Your task to perform on an android device: visit the assistant section in the google photos Image 0: 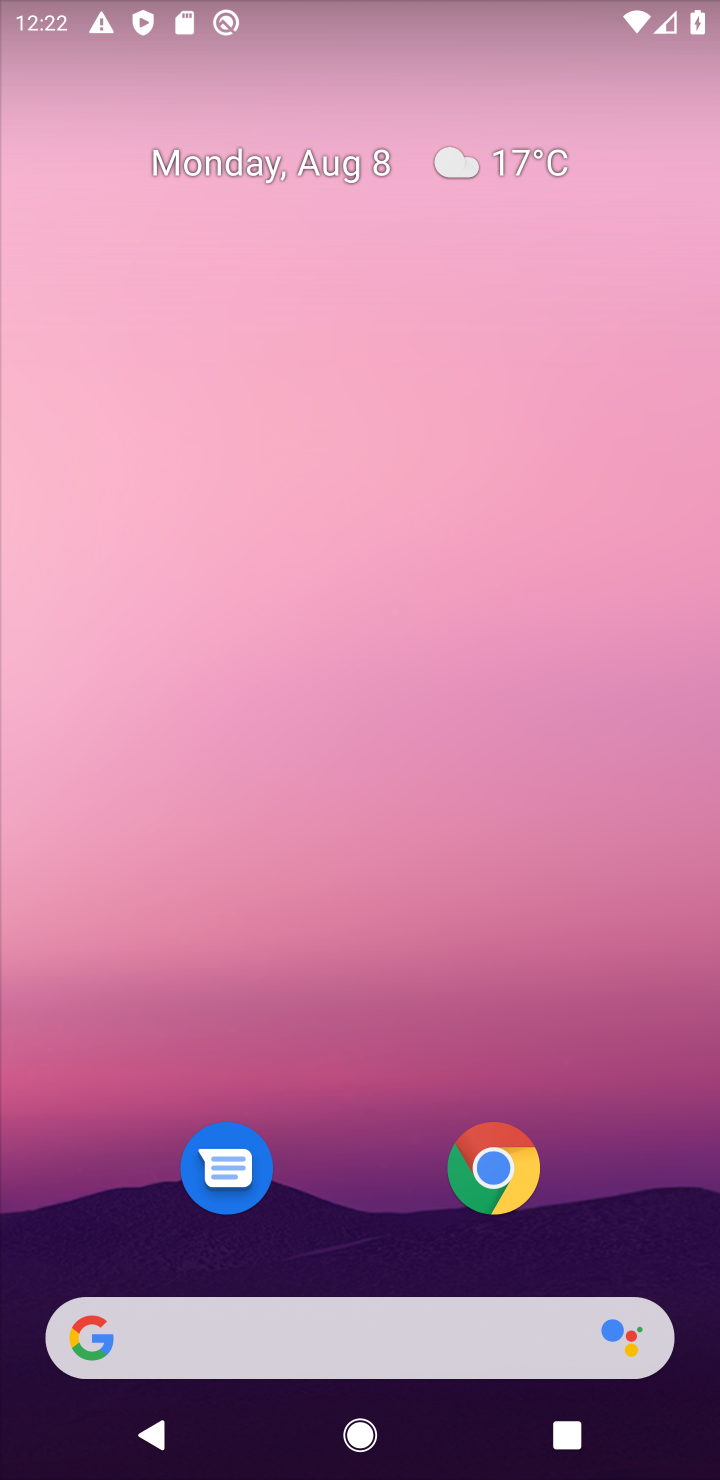
Step 0: drag from (87, 1417) to (494, 807)
Your task to perform on an android device: visit the assistant section in the google photos Image 1: 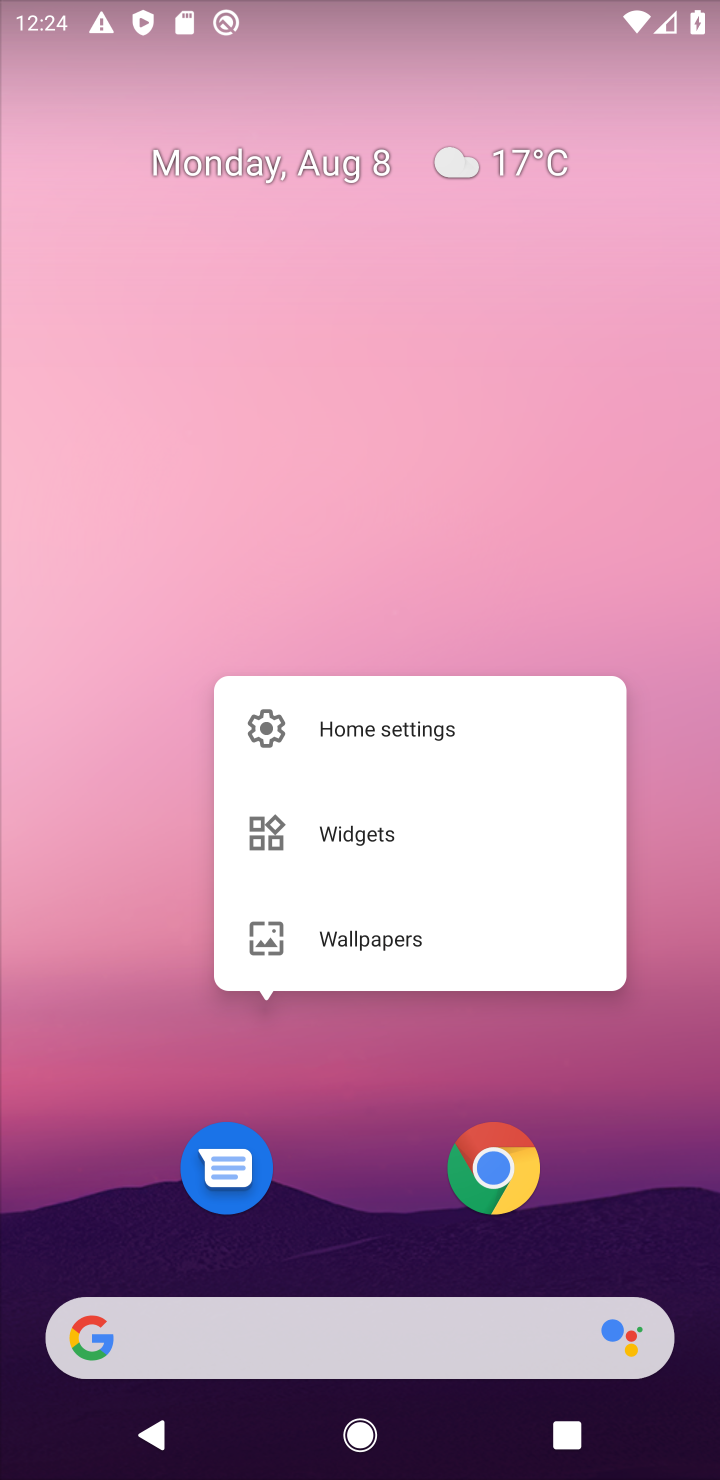
Step 1: drag from (161, 1102) to (486, 543)
Your task to perform on an android device: visit the assistant section in the google photos Image 2: 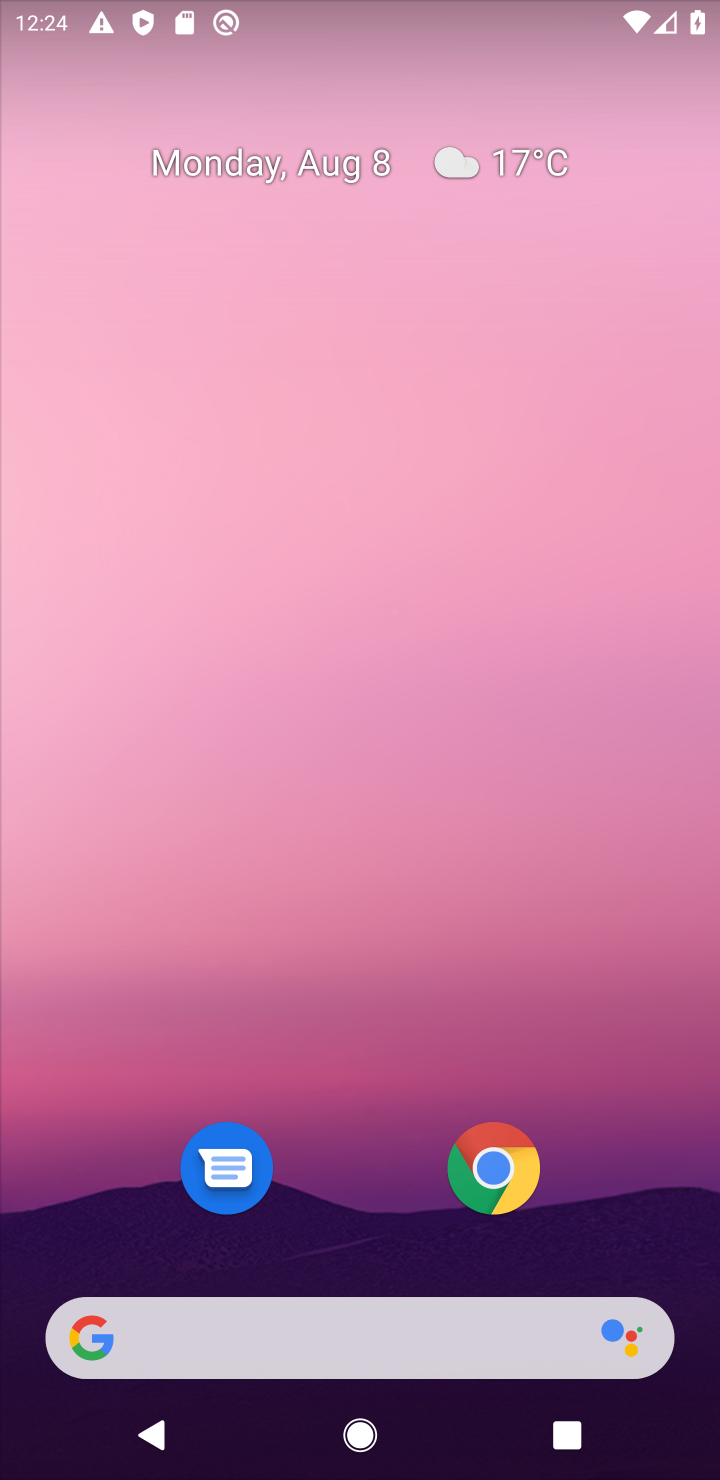
Step 2: drag from (77, 1443) to (573, 225)
Your task to perform on an android device: visit the assistant section in the google photos Image 3: 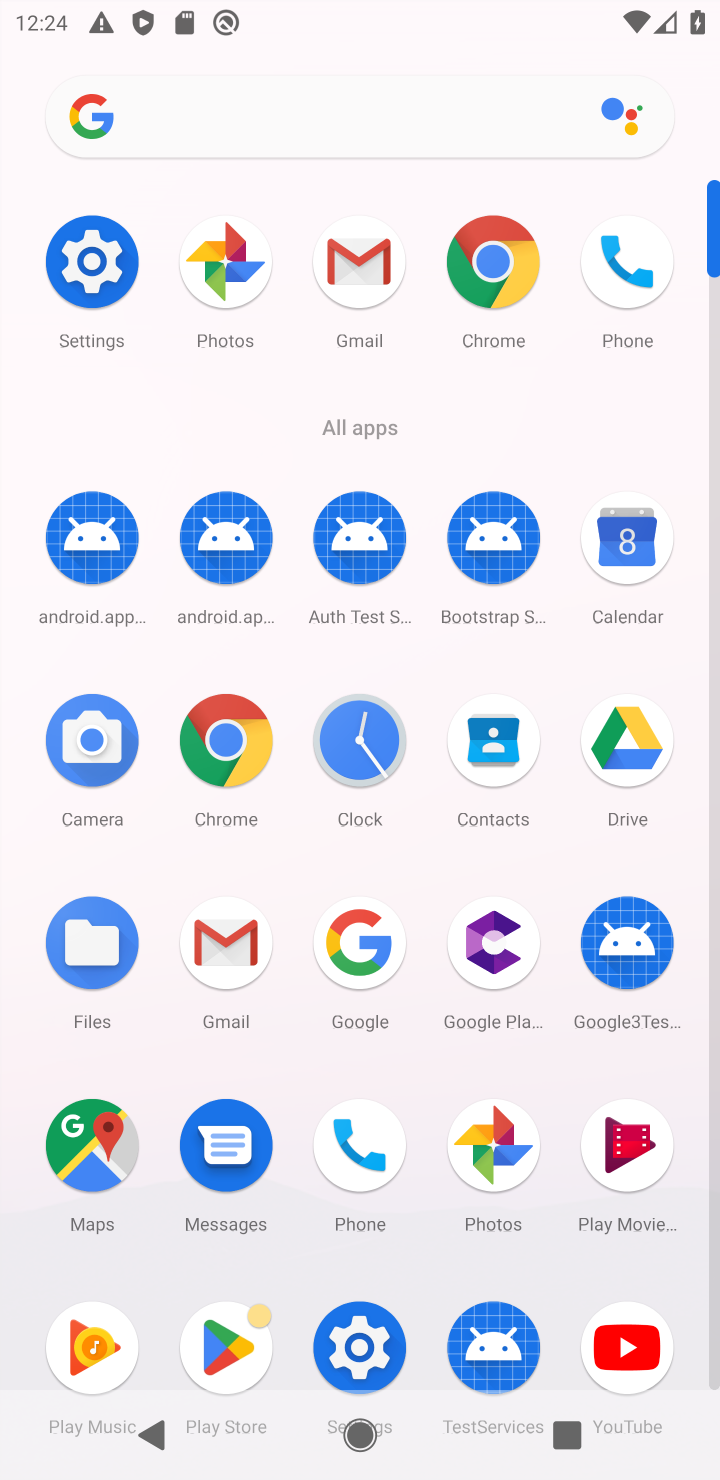
Step 3: click (467, 1145)
Your task to perform on an android device: visit the assistant section in the google photos Image 4: 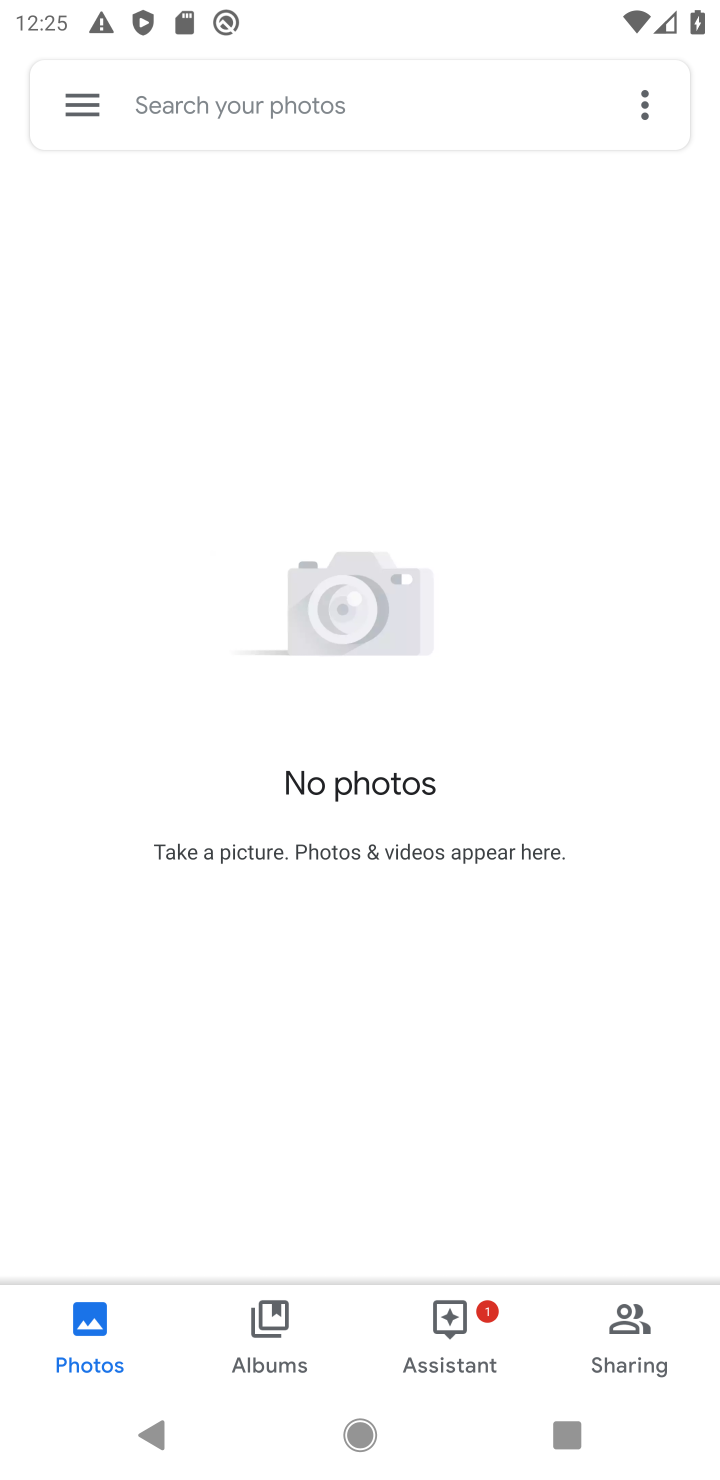
Step 4: click (457, 1330)
Your task to perform on an android device: visit the assistant section in the google photos Image 5: 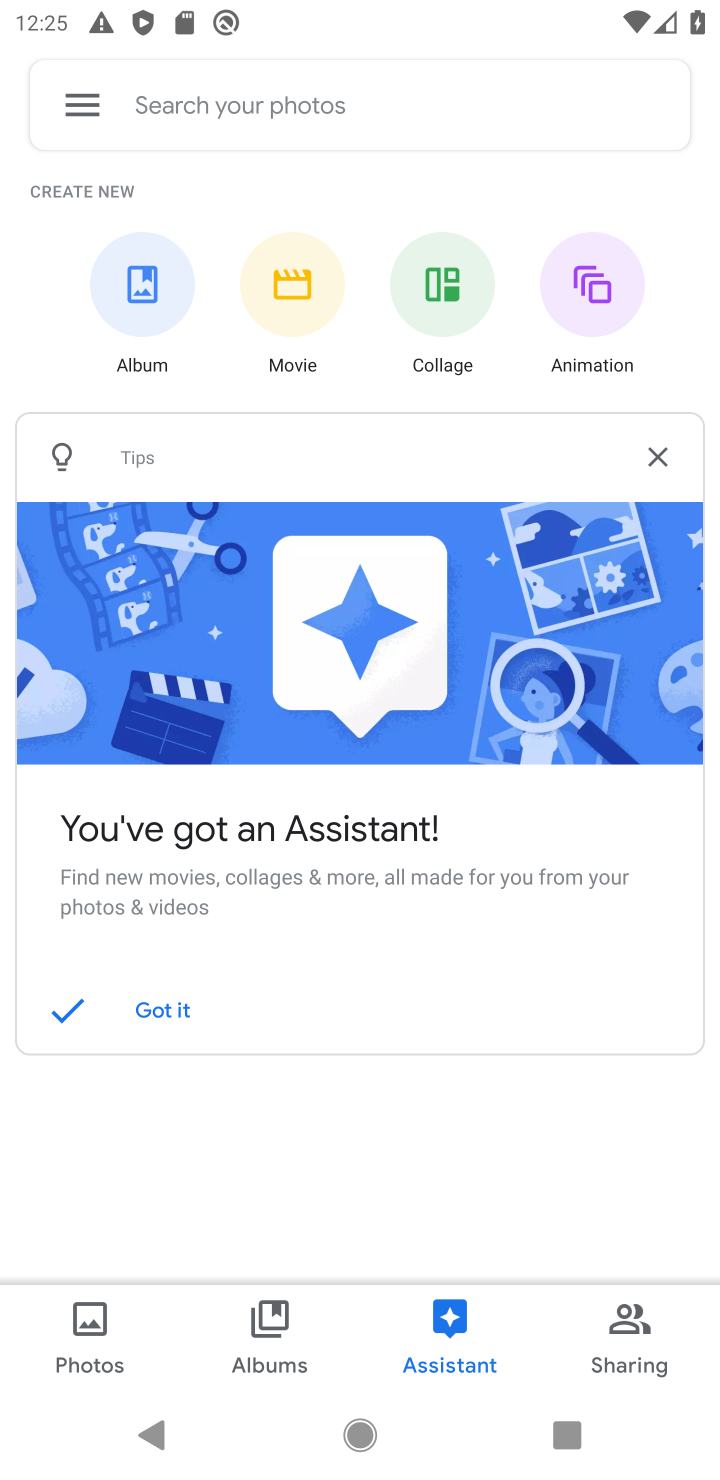
Step 5: task complete